Your task to perform on an android device: toggle javascript in the chrome app Image 0: 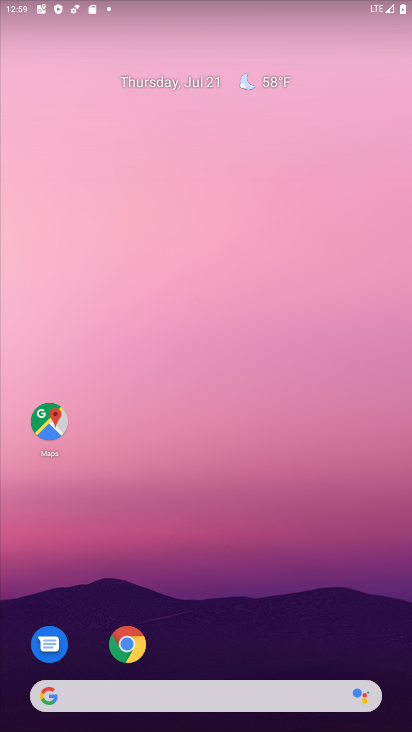
Step 0: drag from (324, 599) to (324, 70)
Your task to perform on an android device: toggle javascript in the chrome app Image 1: 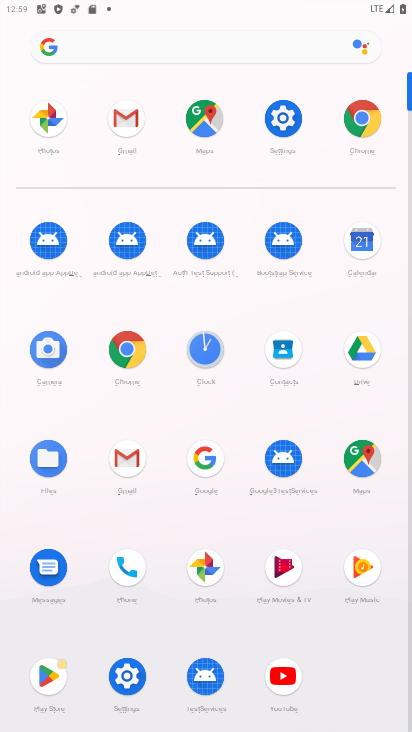
Step 1: click (377, 120)
Your task to perform on an android device: toggle javascript in the chrome app Image 2: 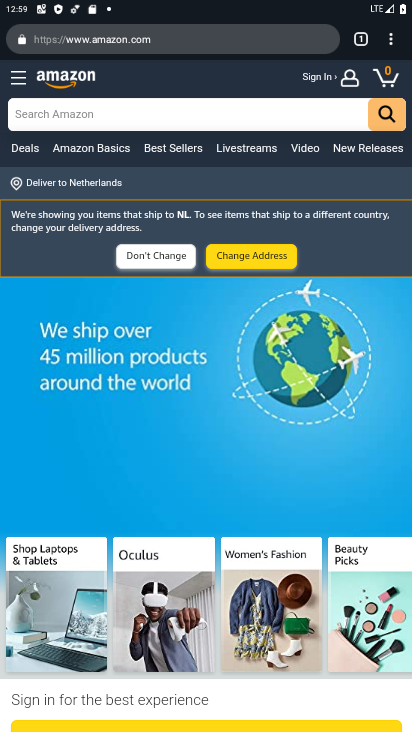
Step 2: click (395, 47)
Your task to perform on an android device: toggle javascript in the chrome app Image 3: 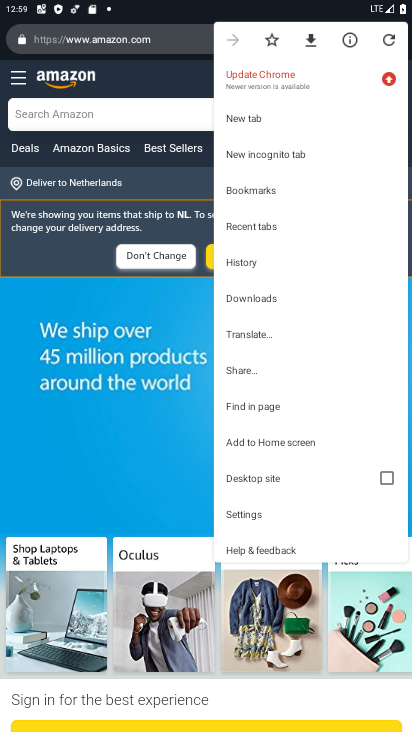
Step 3: click (285, 516)
Your task to perform on an android device: toggle javascript in the chrome app Image 4: 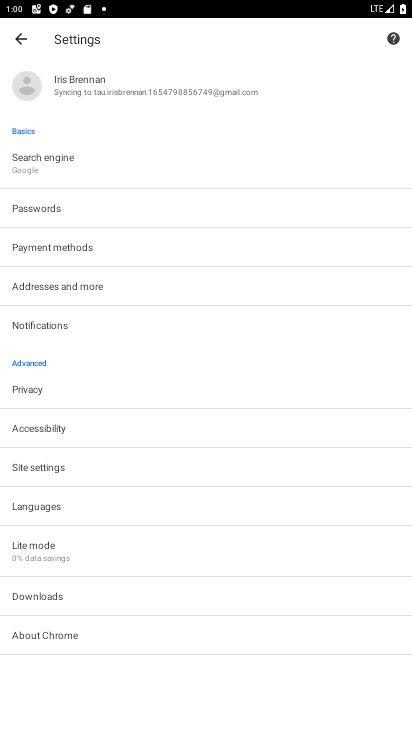
Step 4: drag from (322, 523) to (323, 464)
Your task to perform on an android device: toggle javascript in the chrome app Image 5: 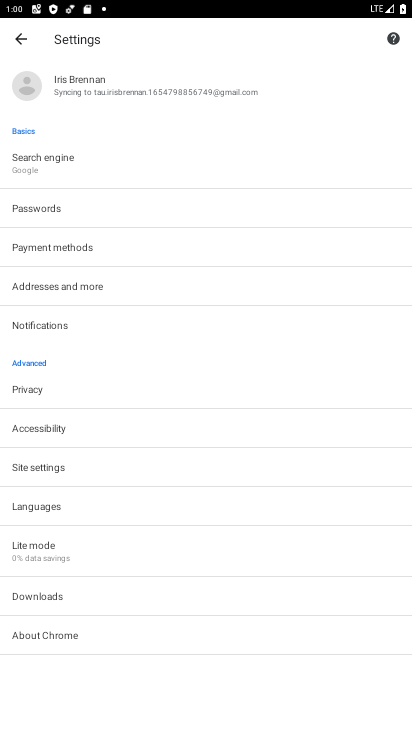
Step 5: click (137, 469)
Your task to perform on an android device: toggle javascript in the chrome app Image 6: 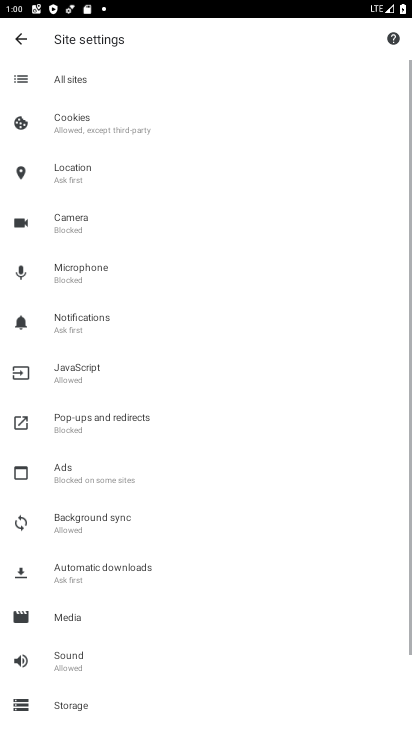
Step 6: drag from (225, 520) to (236, 451)
Your task to perform on an android device: toggle javascript in the chrome app Image 7: 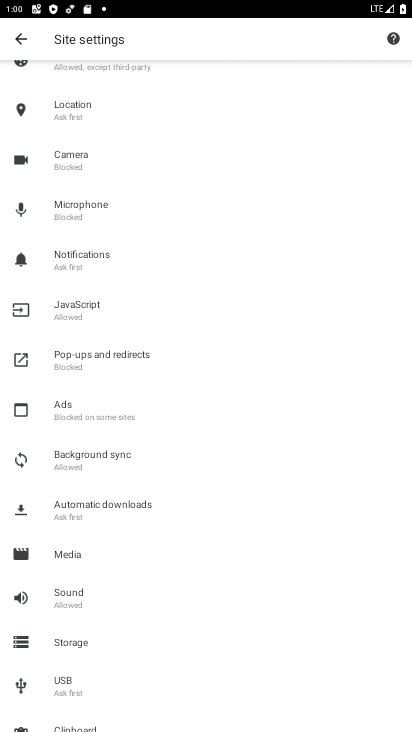
Step 7: drag from (280, 550) to (287, 457)
Your task to perform on an android device: toggle javascript in the chrome app Image 8: 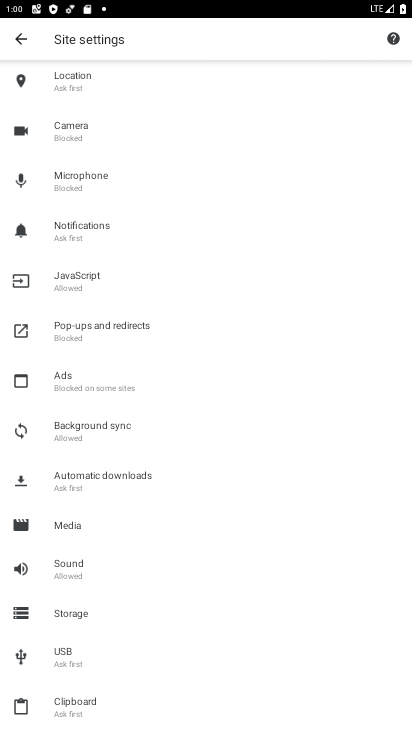
Step 8: drag from (311, 340) to (317, 417)
Your task to perform on an android device: toggle javascript in the chrome app Image 9: 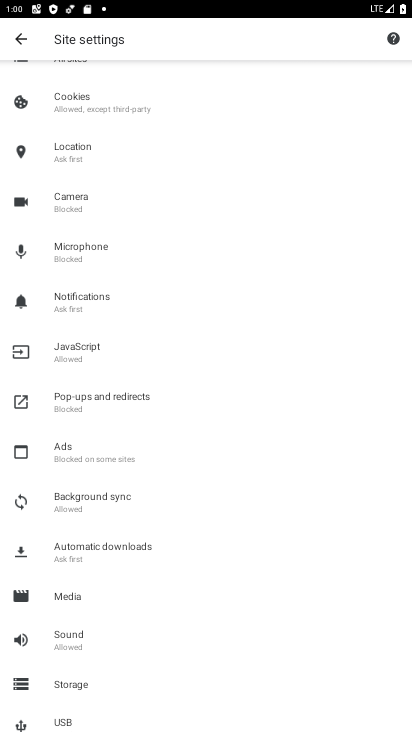
Step 9: drag from (325, 338) to (325, 433)
Your task to perform on an android device: toggle javascript in the chrome app Image 10: 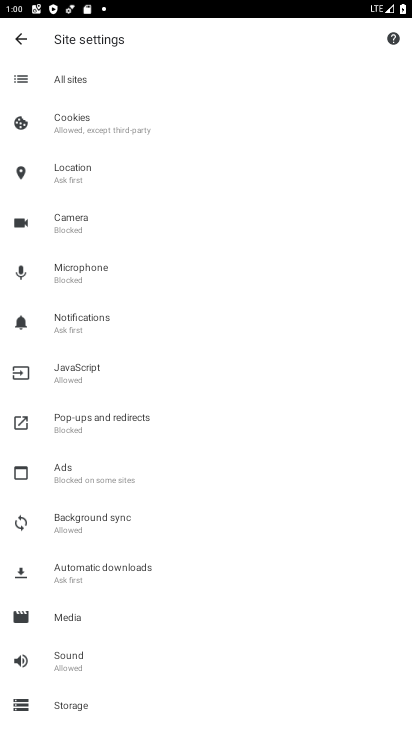
Step 10: click (166, 380)
Your task to perform on an android device: toggle javascript in the chrome app Image 11: 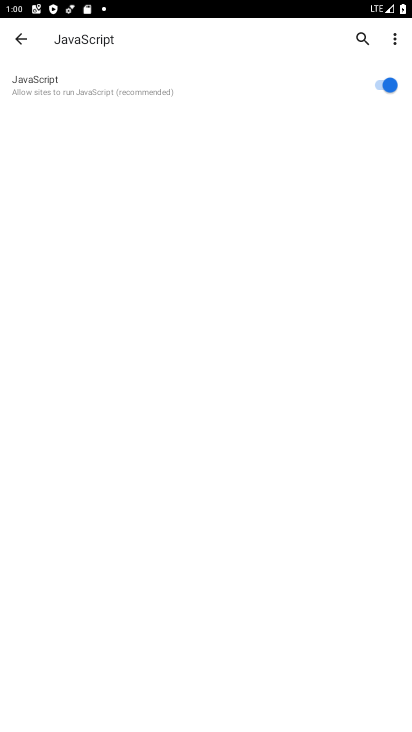
Step 11: click (392, 87)
Your task to perform on an android device: toggle javascript in the chrome app Image 12: 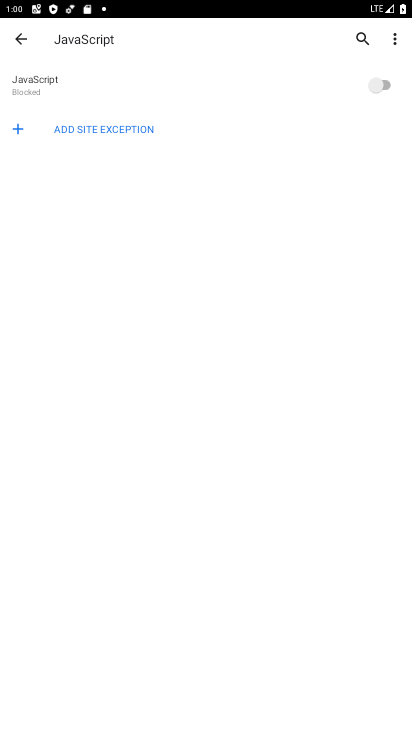
Step 12: task complete